Your task to perform on an android device: Open the map Image 0: 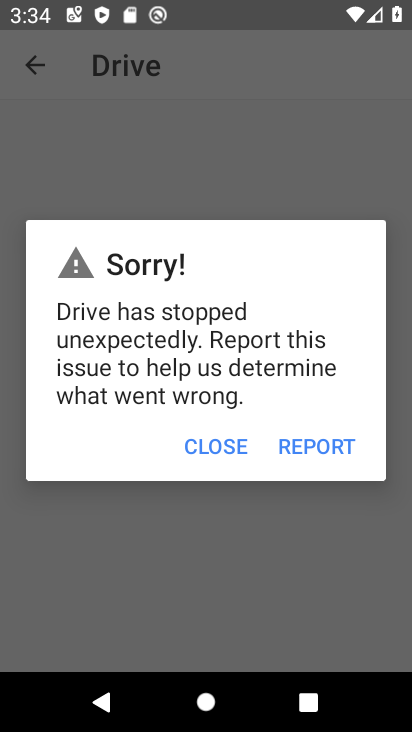
Step 0: press home button
Your task to perform on an android device: Open the map Image 1: 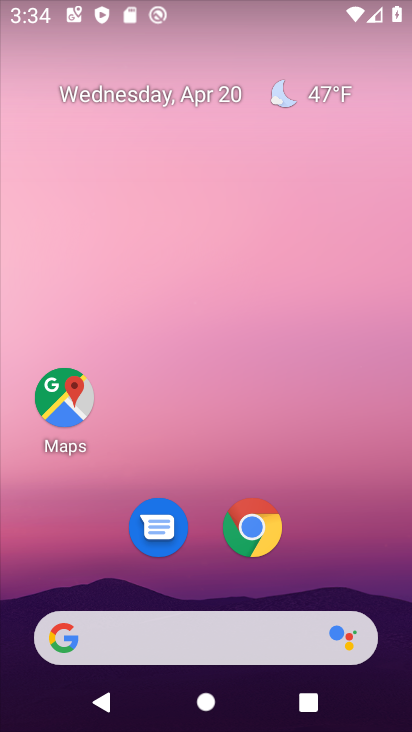
Step 1: click (329, 556)
Your task to perform on an android device: Open the map Image 2: 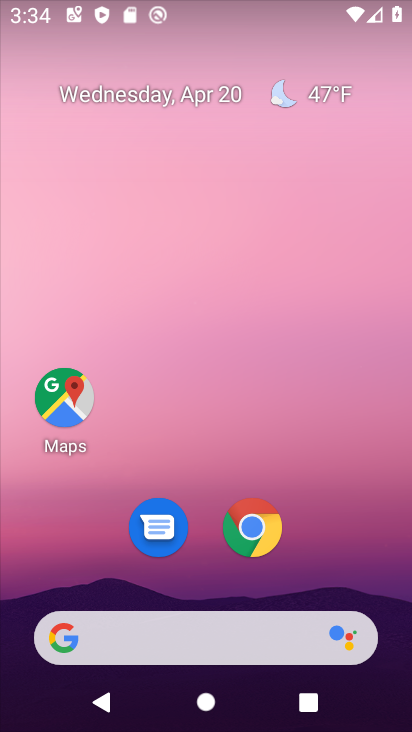
Step 2: click (78, 408)
Your task to perform on an android device: Open the map Image 3: 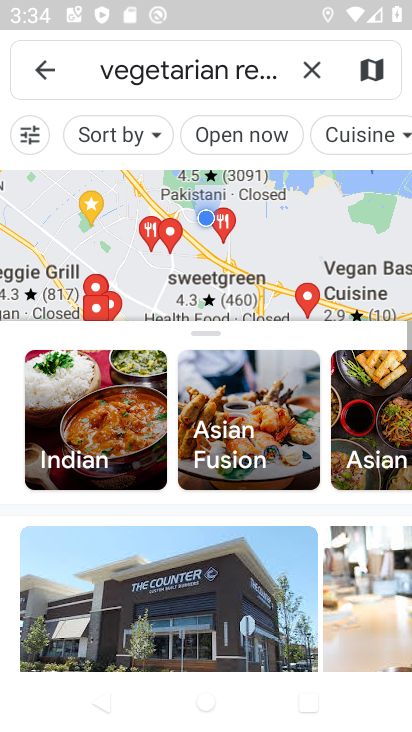
Step 3: task complete